Your task to perform on an android device: Open Chrome and go to settings Image 0: 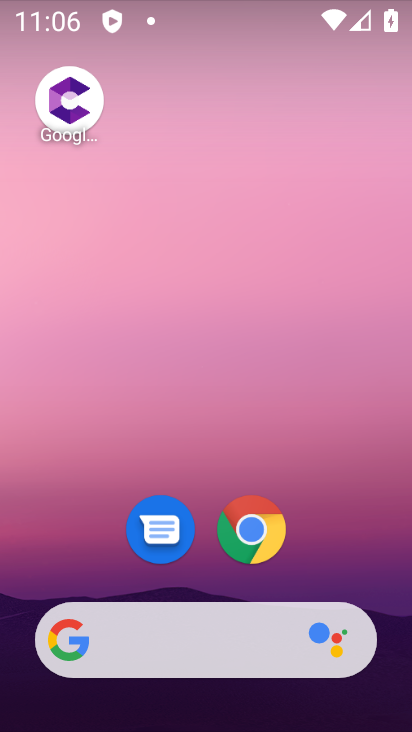
Step 0: drag from (341, 415) to (311, 249)
Your task to perform on an android device: Open Chrome and go to settings Image 1: 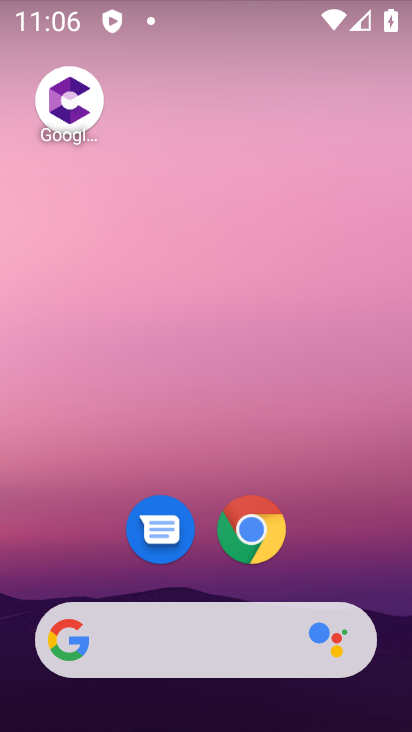
Step 1: click (253, 515)
Your task to perform on an android device: Open Chrome and go to settings Image 2: 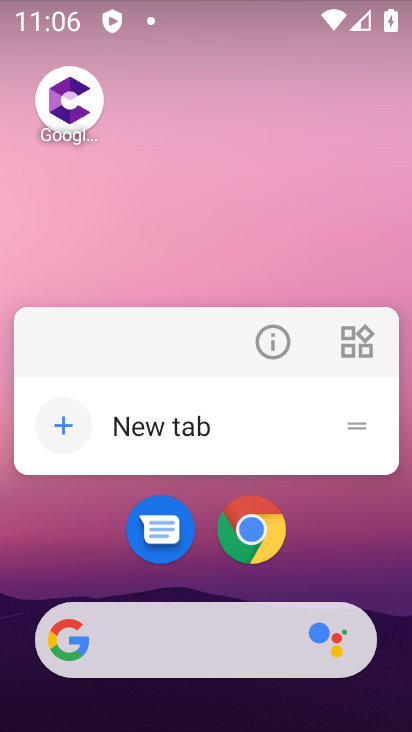
Step 2: click (266, 516)
Your task to perform on an android device: Open Chrome and go to settings Image 3: 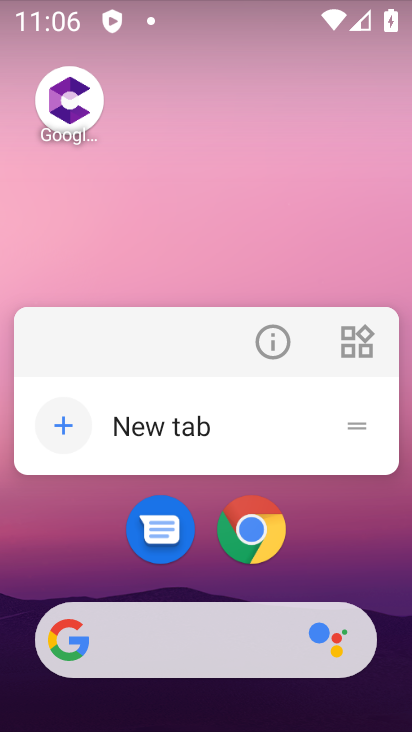
Step 3: click (258, 523)
Your task to perform on an android device: Open Chrome and go to settings Image 4: 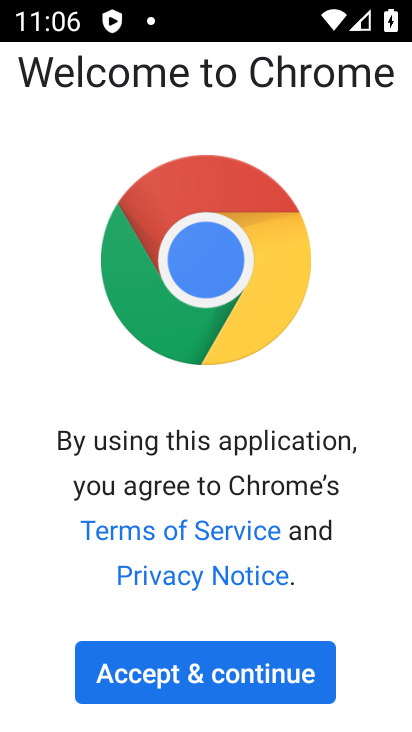
Step 4: click (245, 658)
Your task to perform on an android device: Open Chrome and go to settings Image 5: 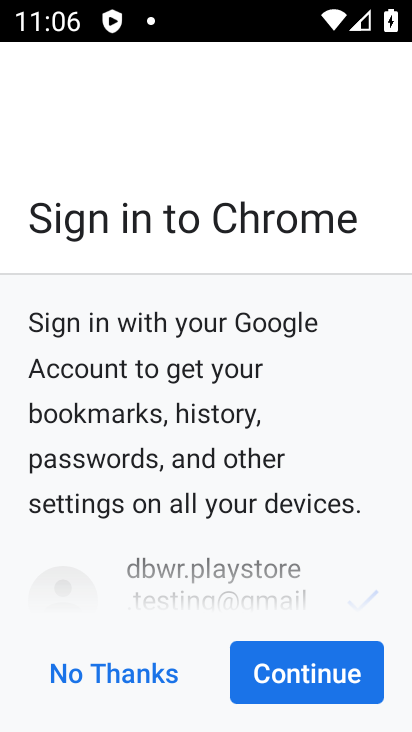
Step 5: click (280, 662)
Your task to perform on an android device: Open Chrome and go to settings Image 6: 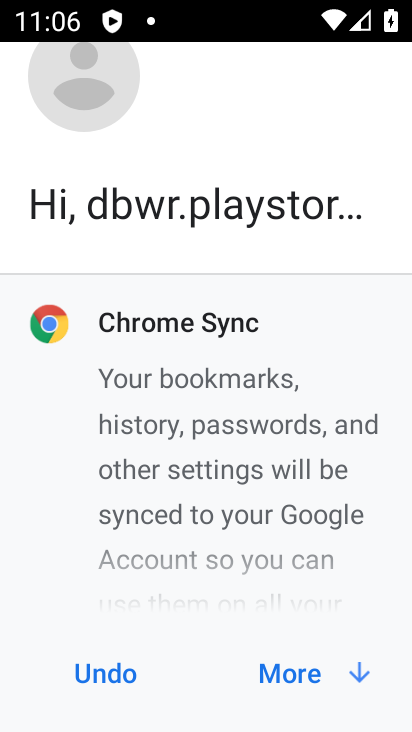
Step 6: click (280, 660)
Your task to perform on an android device: Open Chrome and go to settings Image 7: 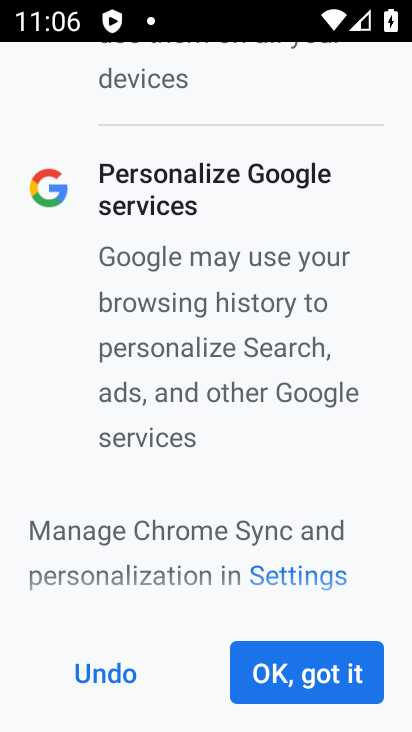
Step 7: click (280, 660)
Your task to perform on an android device: Open Chrome and go to settings Image 8: 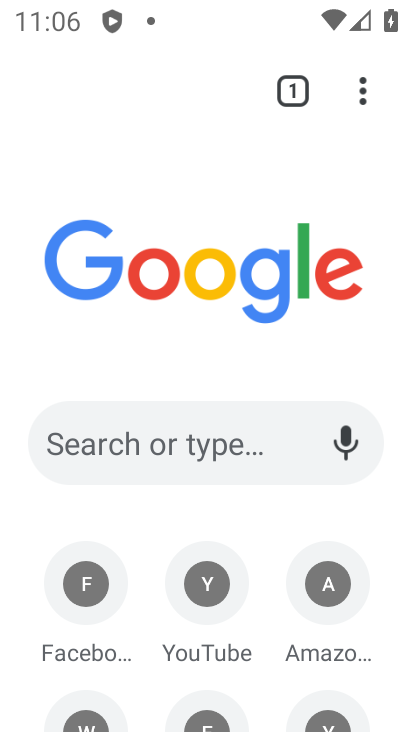
Step 8: click (336, 90)
Your task to perform on an android device: Open Chrome and go to settings Image 9: 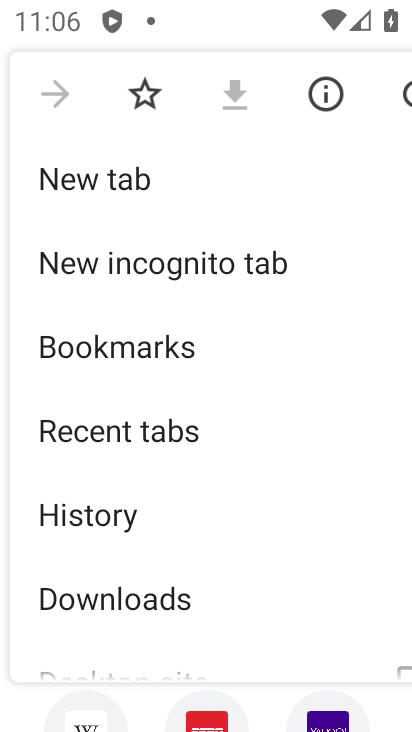
Step 9: drag from (185, 590) to (254, 219)
Your task to perform on an android device: Open Chrome and go to settings Image 10: 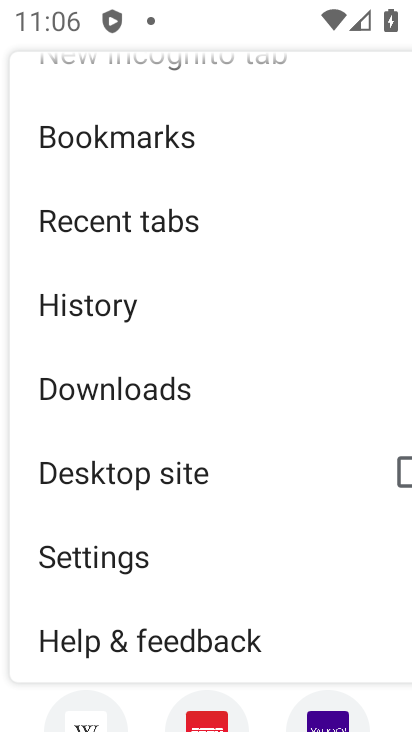
Step 10: click (114, 558)
Your task to perform on an android device: Open Chrome and go to settings Image 11: 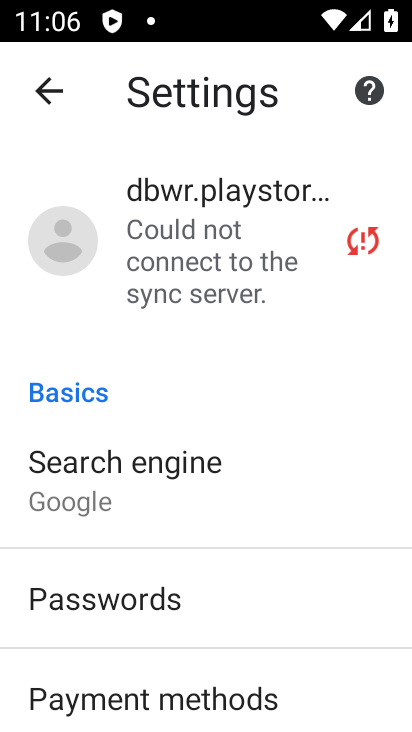
Step 11: task complete